Your task to perform on an android device: empty trash in google photos Image 0: 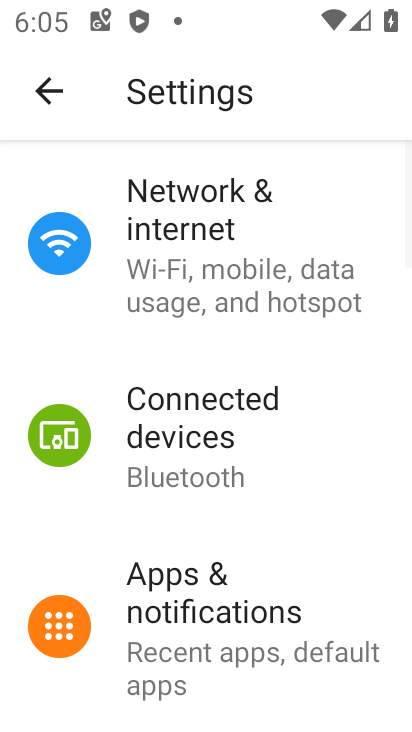
Step 0: press home button
Your task to perform on an android device: empty trash in google photos Image 1: 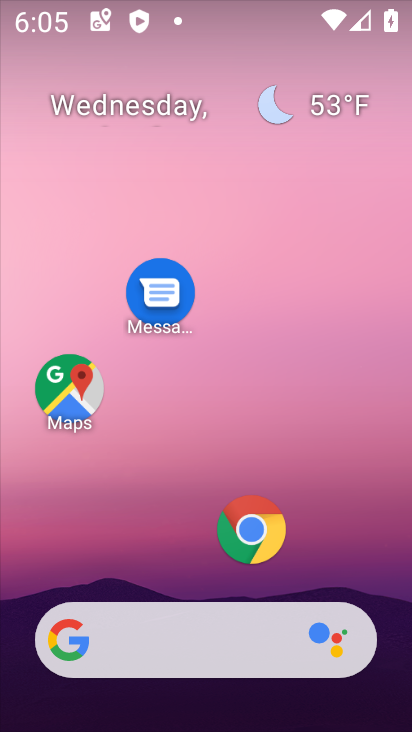
Step 1: drag from (234, 581) to (227, 143)
Your task to perform on an android device: empty trash in google photos Image 2: 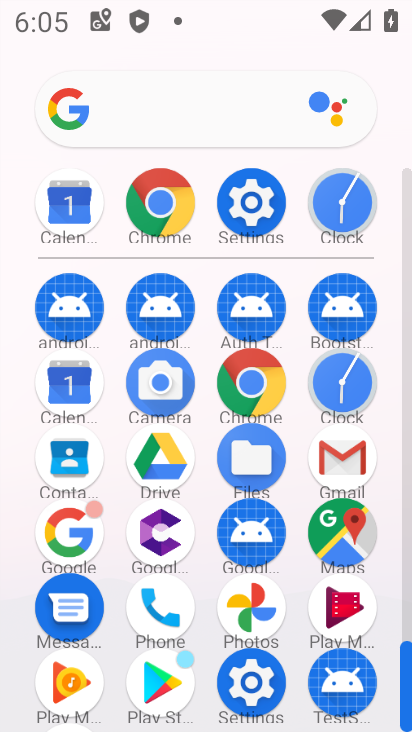
Step 2: click (253, 606)
Your task to perform on an android device: empty trash in google photos Image 3: 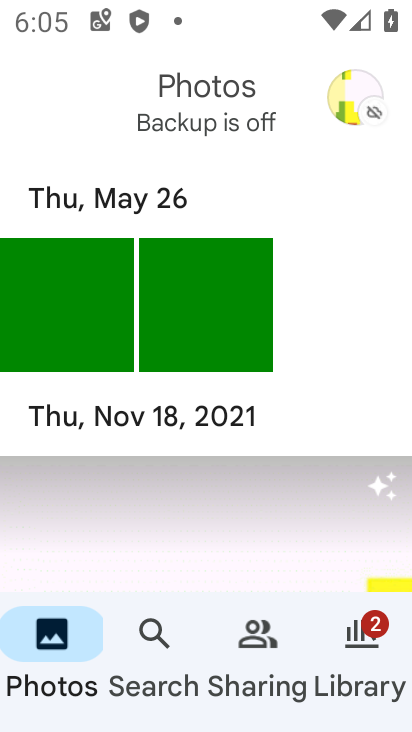
Step 3: click (336, 677)
Your task to perform on an android device: empty trash in google photos Image 4: 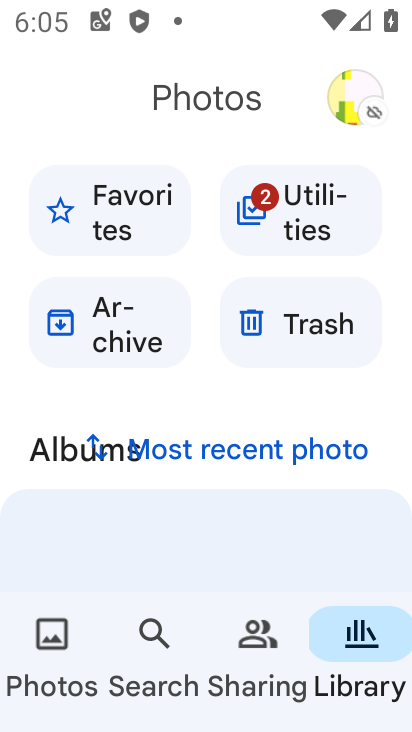
Step 4: click (317, 323)
Your task to perform on an android device: empty trash in google photos Image 5: 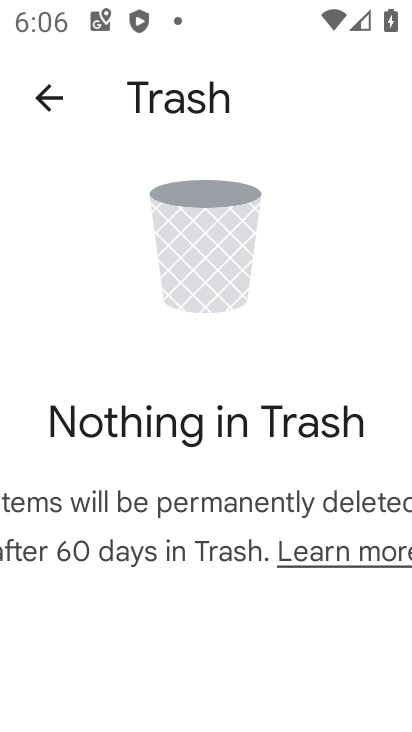
Step 5: task complete